Your task to perform on an android device: add a contact in the contacts app Image 0: 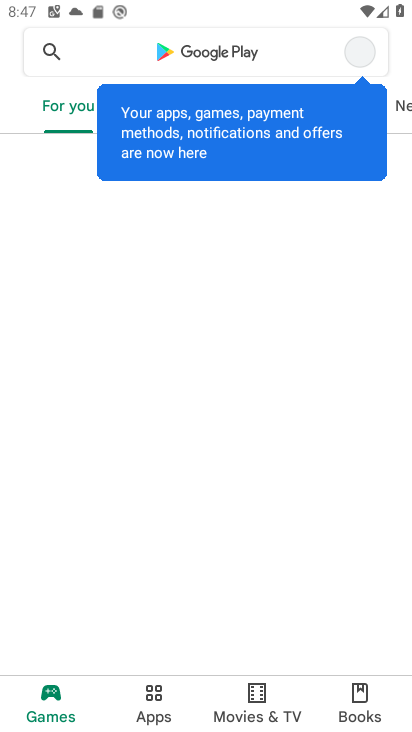
Step 0: press home button
Your task to perform on an android device: add a contact in the contacts app Image 1: 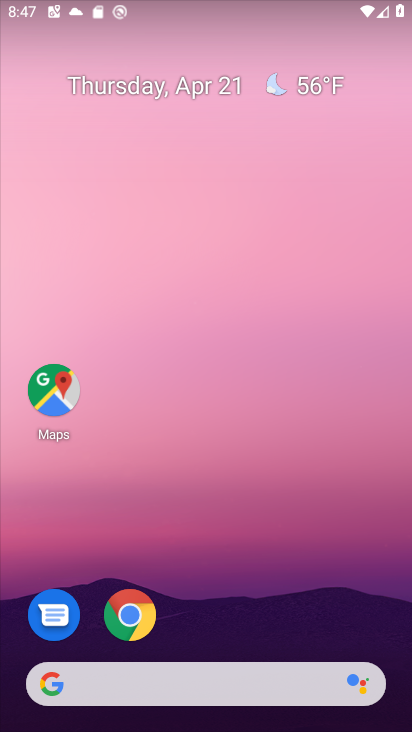
Step 1: drag from (251, 572) to (200, 60)
Your task to perform on an android device: add a contact in the contacts app Image 2: 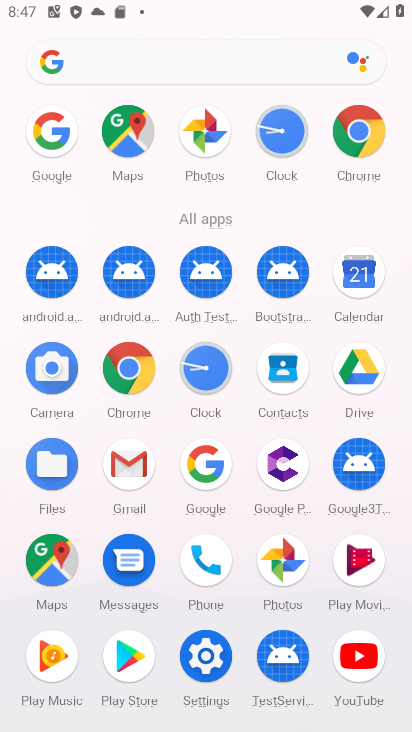
Step 2: drag from (179, 517) to (155, 324)
Your task to perform on an android device: add a contact in the contacts app Image 3: 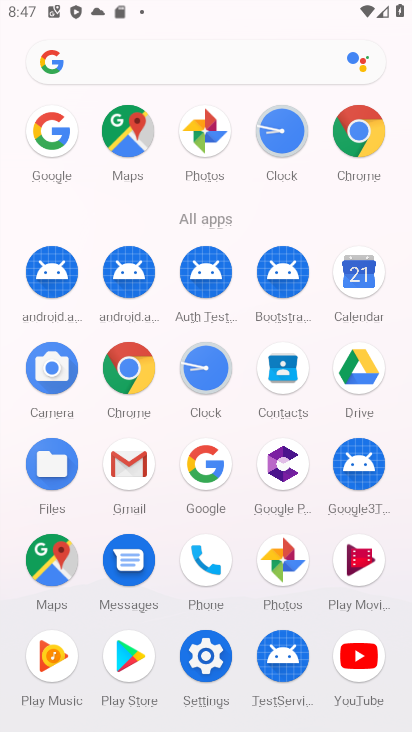
Step 3: click (280, 351)
Your task to perform on an android device: add a contact in the contacts app Image 4: 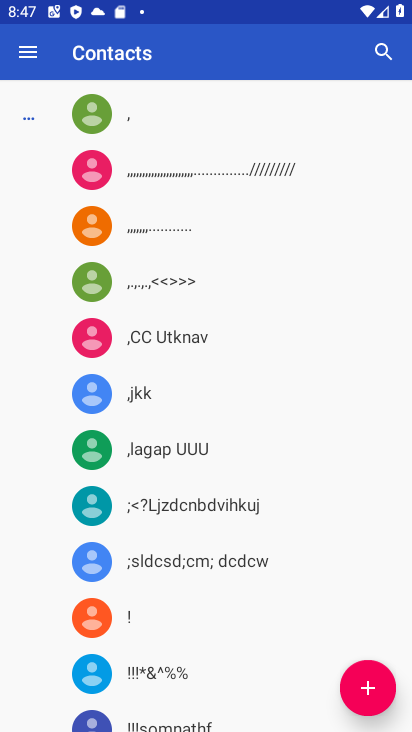
Step 4: click (373, 697)
Your task to perform on an android device: add a contact in the contacts app Image 5: 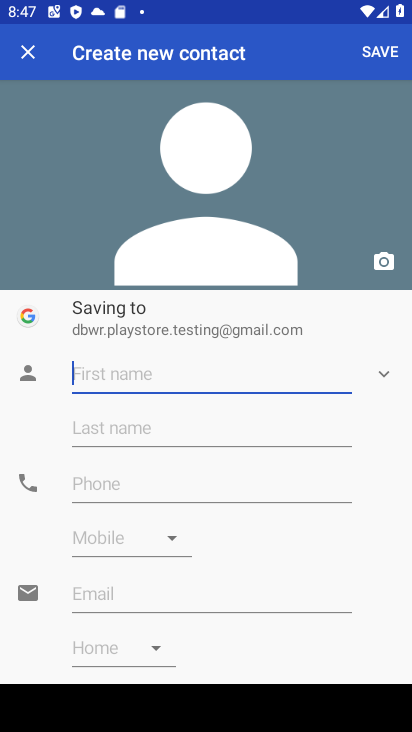
Step 5: type "hjfh"
Your task to perform on an android device: add a contact in the contacts app Image 6: 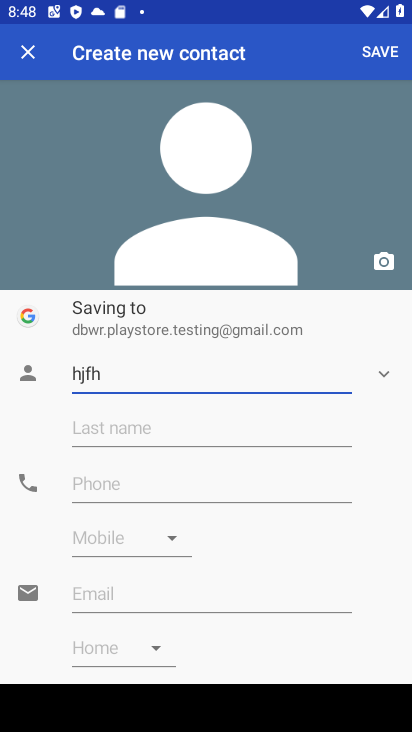
Step 6: click (380, 49)
Your task to perform on an android device: add a contact in the contacts app Image 7: 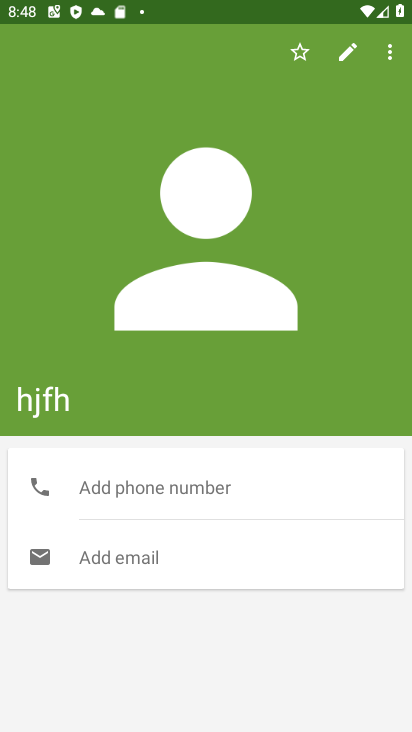
Step 7: task complete